Your task to perform on an android device: What is the recent news? Image 0: 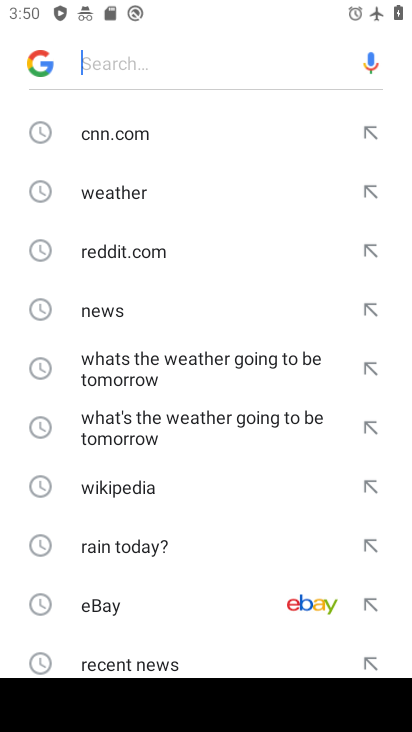
Step 0: press home button
Your task to perform on an android device: What is the recent news? Image 1: 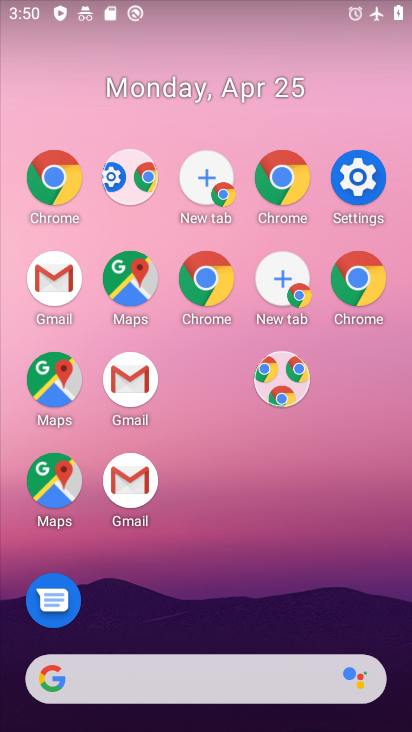
Step 1: task complete